Your task to perform on an android device: Search for pizza restaurants on Maps Image 0: 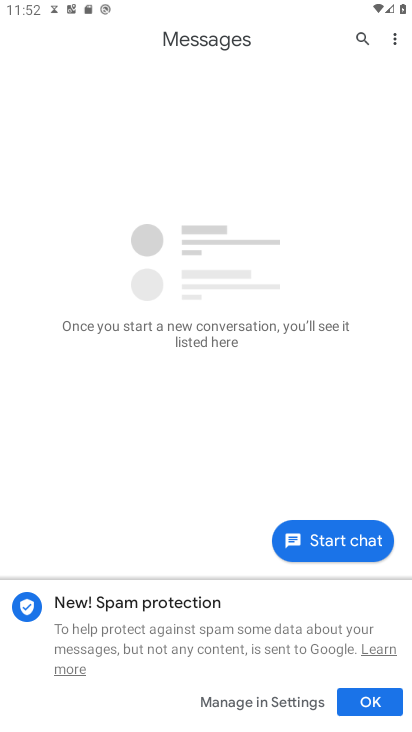
Step 0: press home button
Your task to perform on an android device: Search for pizza restaurants on Maps Image 1: 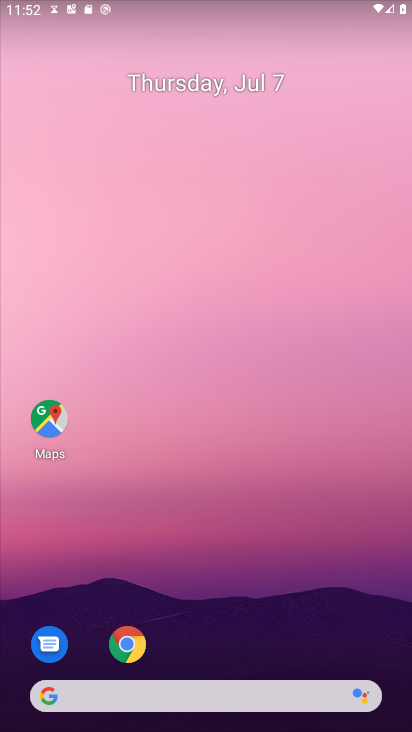
Step 1: click (40, 409)
Your task to perform on an android device: Search for pizza restaurants on Maps Image 2: 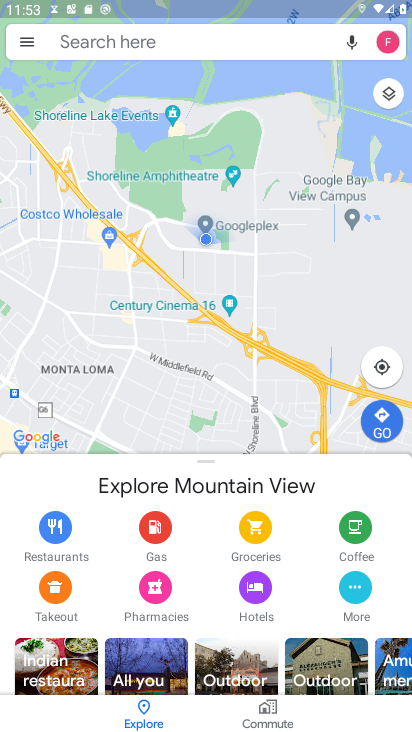
Step 2: click (130, 38)
Your task to perform on an android device: Search for pizza restaurants on Maps Image 3: 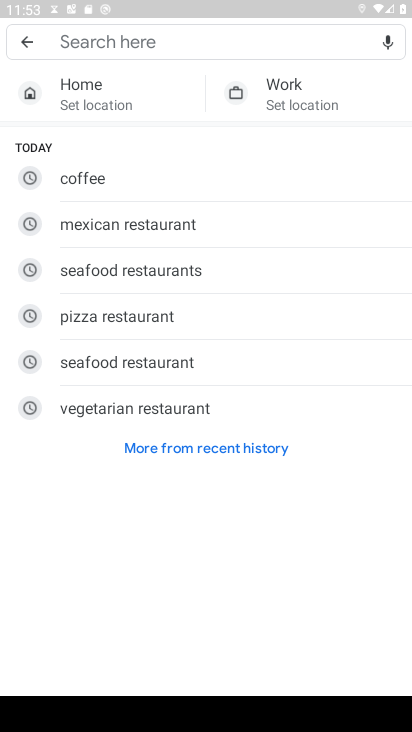
Step 3: type "pizza restaurants"
Your task to perform on an android device: Search for pizza restaurants on Maps Image 4: 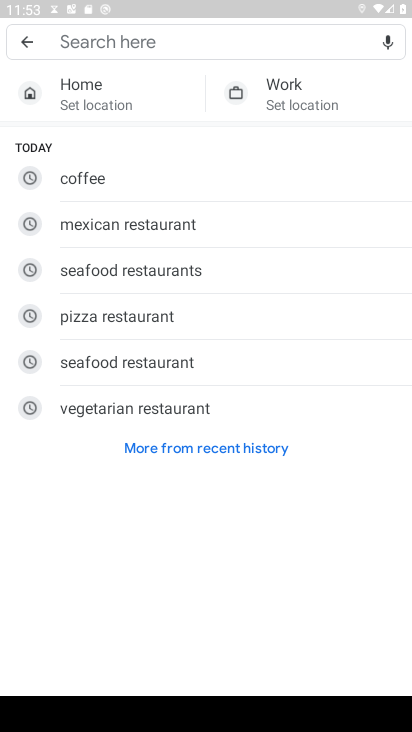
Step 4: click (107, 39)
Your task to perform on an android device: Search for pizza restaurants on Maps Image 5: 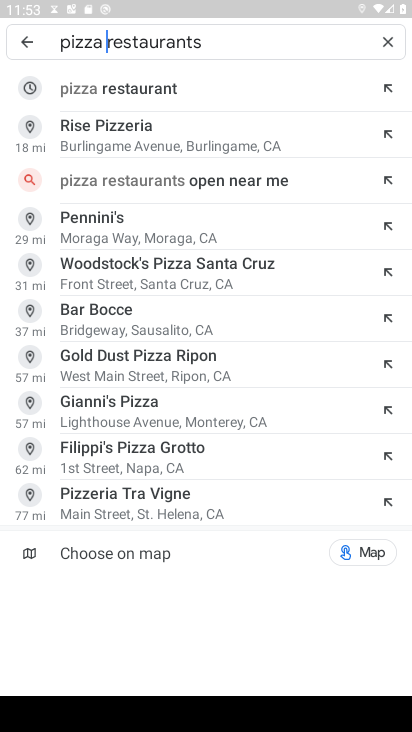
Step 5: press enter
Your task to perform on an android device: Search for pizza restaurants on Maps Image 6: 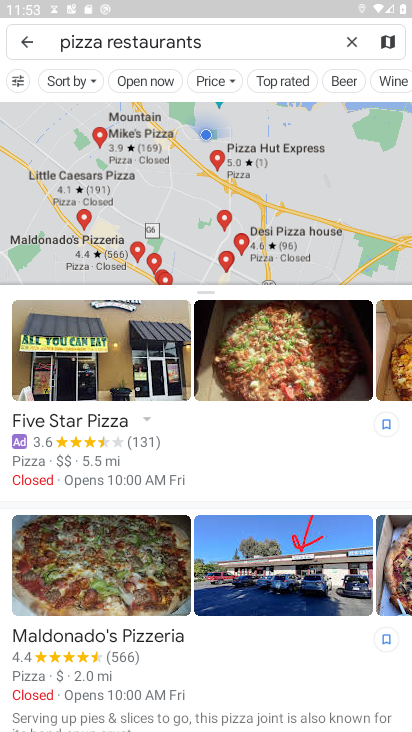
Step 6: task complete